Your task to perform on an android device: delete the emails in spam in the gmail app Image 0: 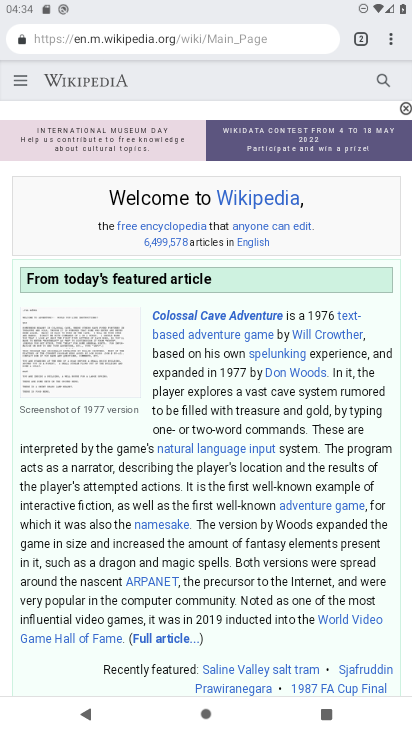
Step 0: press home button
Your task to perform on an android device: delete the emails in spam in the gmail app Image 1: 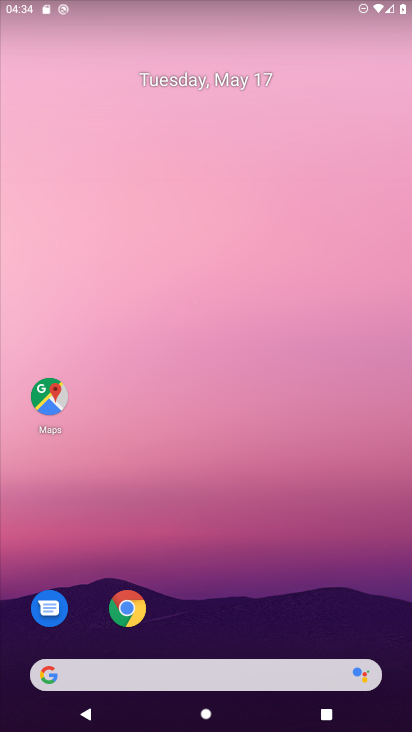
Step 1: drag from (151, 642) to (217, 284)
Your task to perform on an android device: delete the emails in spam in the gmail app Image 2: 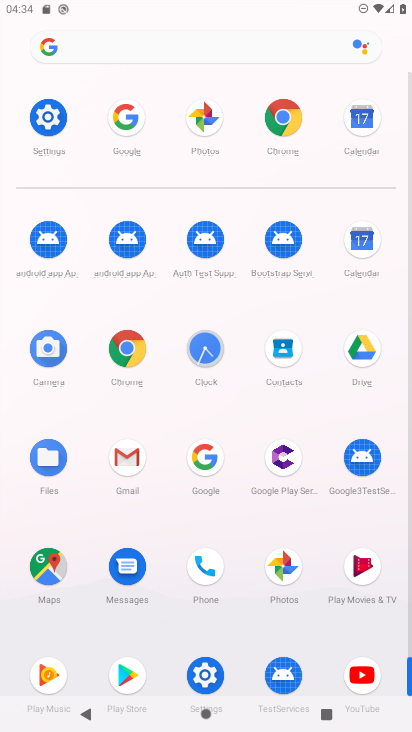
Step 2: click (124, 459)
Your task to perform on an android device: delete the emails in spam in the gmail app Image 3: 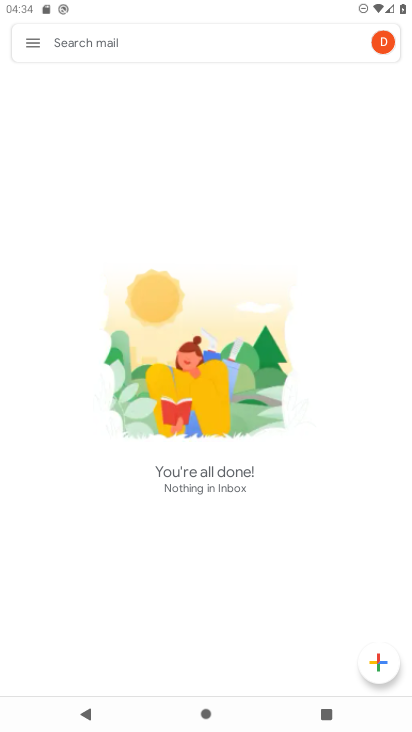
Step 3: click (31, 45)
Your task to perform on an android device: delete the emails in spam in the gmail app Image 4: 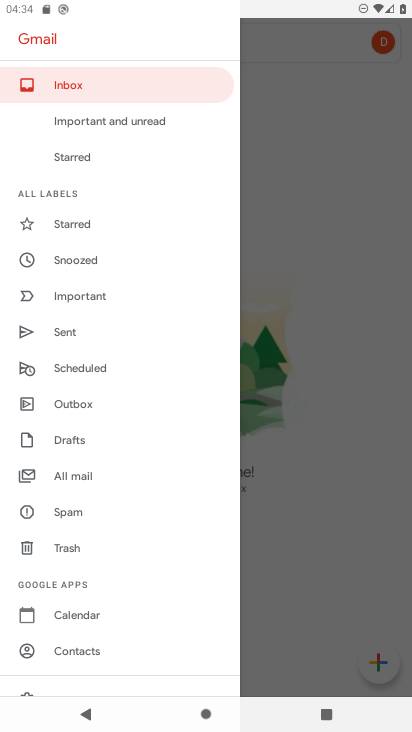
Step 4: click (68, 509)
Your task to perform on an android device: delete the emails in spam in the gmail app Image 5: 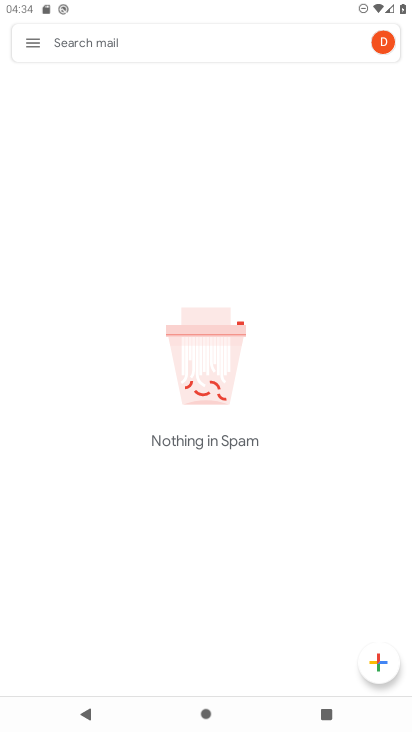
Step 5: task complete